Your task to perform on an android device: Go to accessibility settings Image 0: 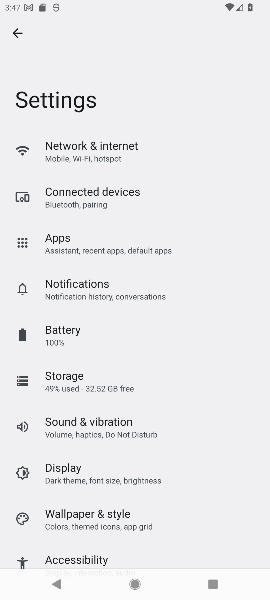
Step 0: drag from (184, 533) to (179, 240)
Your task to perform on an android device: Go to accessibility settings Image 1: 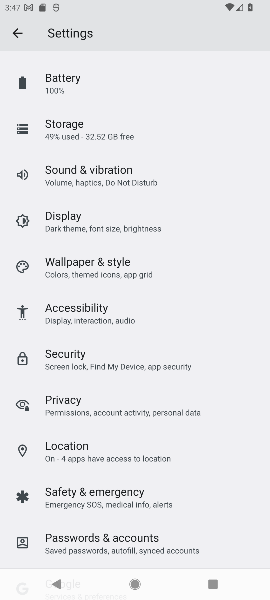
Step 1: click (87, 314)
Your task to perform on an android device: Go to accessibility settings Image 2: 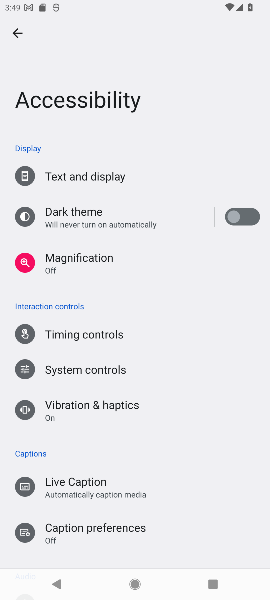
Step 2: task complete